Your task to perform on an android device: Is it going to rain tomorrow? Image 0: 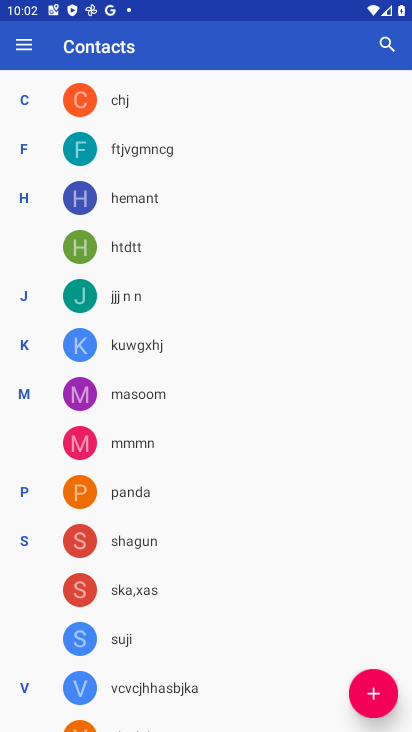
Step 0: press home button
Your task to perform on an android device: Is it going to rain tomorrow? Image 1: 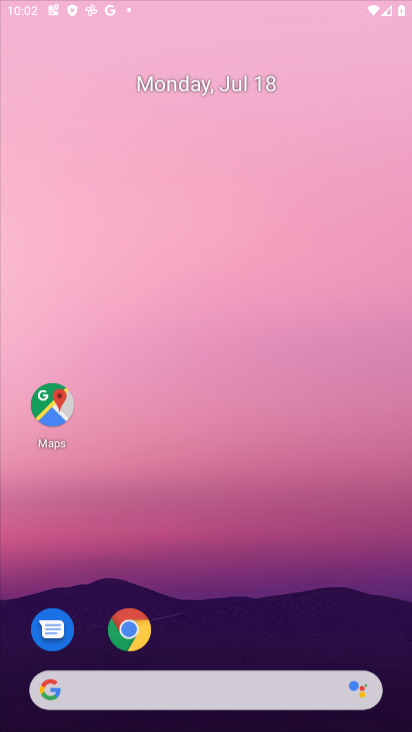
Step 1: drag from (399, 695) to (237, 1)
Your task to perform on an android device: Is it going to rain tomorrow? Image 2: 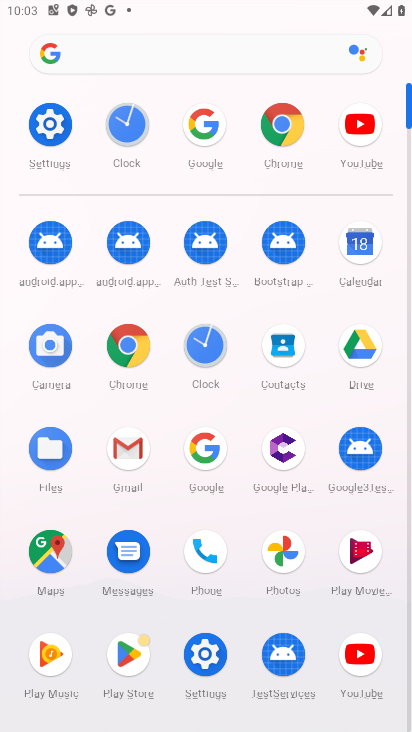
Step 2: click (191, 457)
Your task to perform on an android device: Is it going to rain tomorrow? Image 3: 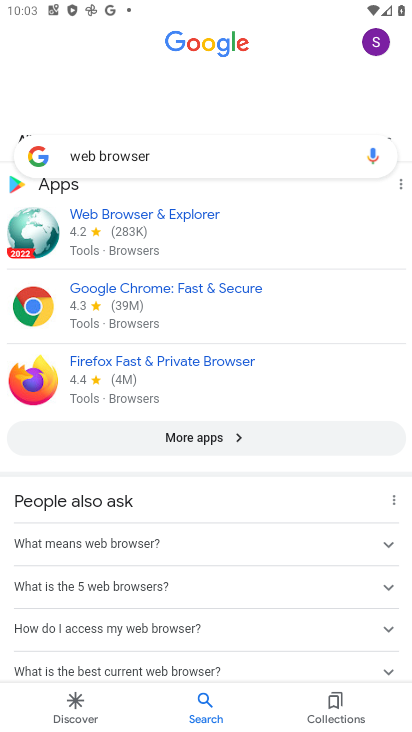
Step 3: press back button
Your task to perform on an android device: Is it going to rain tomorrow? Image 4: 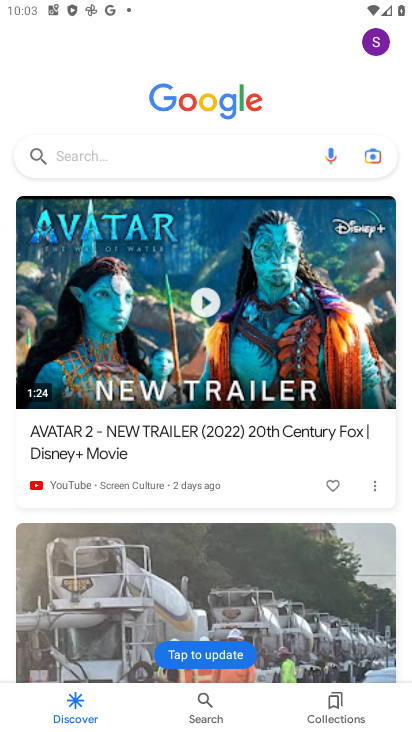
Step 4: click (127, 137)
Your task to perform on an android device: Is it going to rain tomorrow? Image 5: 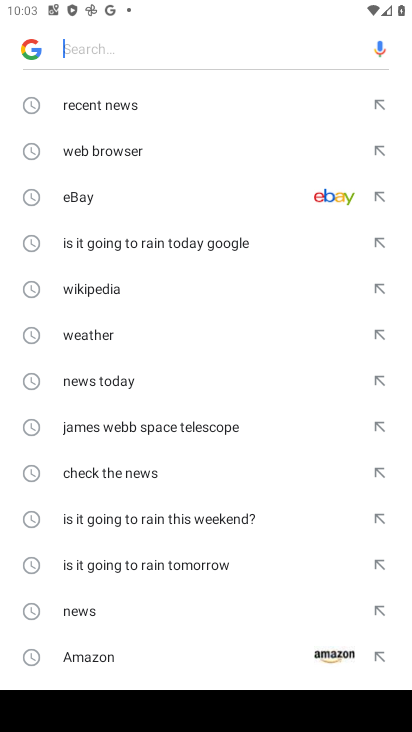
Step 5: type "Is it going to rain tomorrow?"
Your task to perform on an android device: Is it going to rain tomorrow? Image 6: 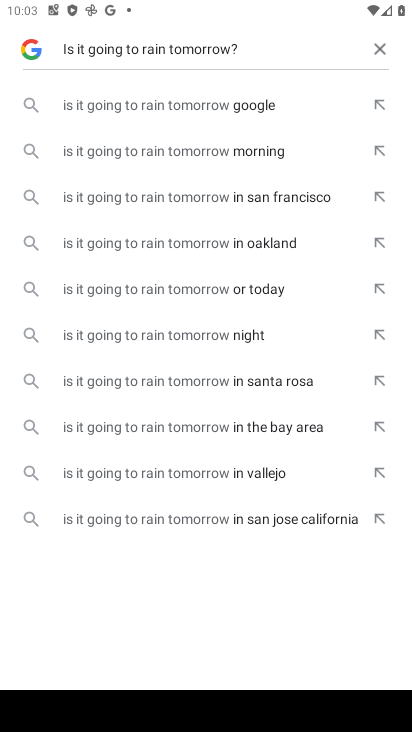
Step 6: click (116, 104)
Your task to perform on an android device: Is it going to rain tomorrow? Image 7: 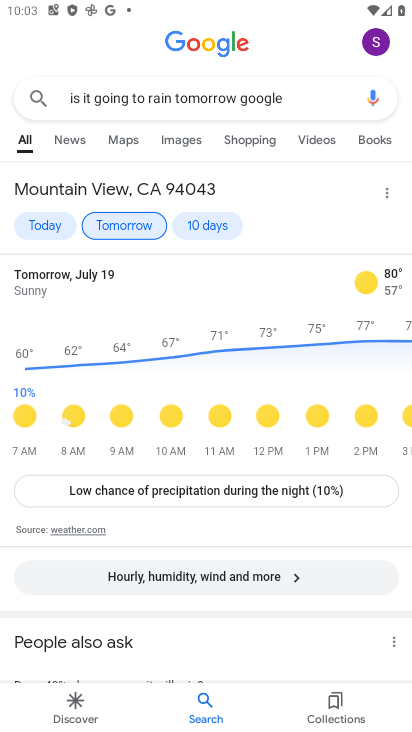
Step 7: task complete